Your task to perform on an android device: set an alarm Image 0: 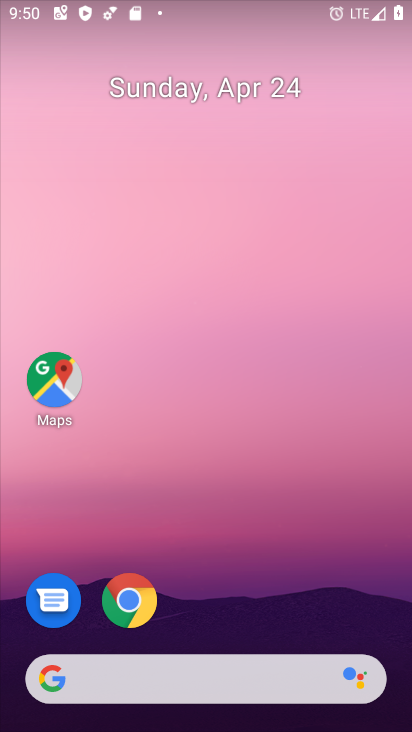
Step 0: drag from (192, 633) to (314, 0)
Your task to perform on an android device: set an alarm Image 1: 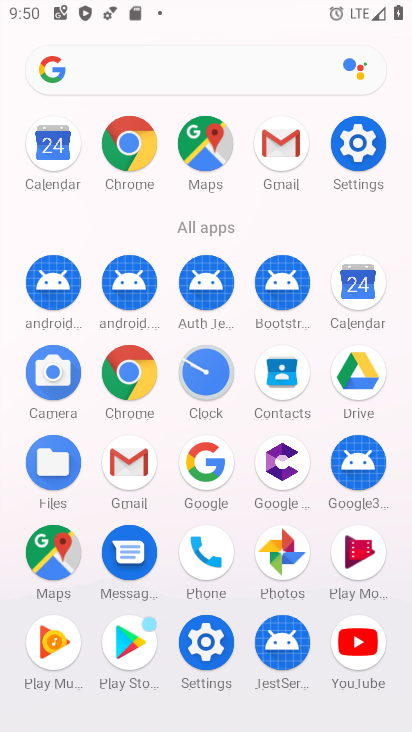
Step 1: click (359, 158)
Your task to perform on an android device: set an alarm Image 2: 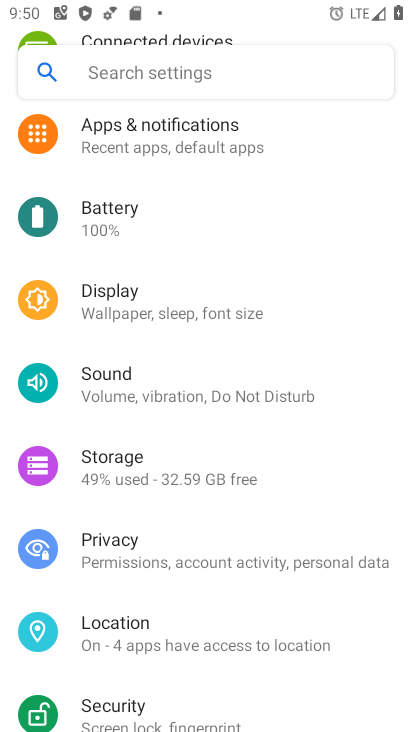
Step 2: press home button
Your task to perform on an android device: set an alarm Image 3: 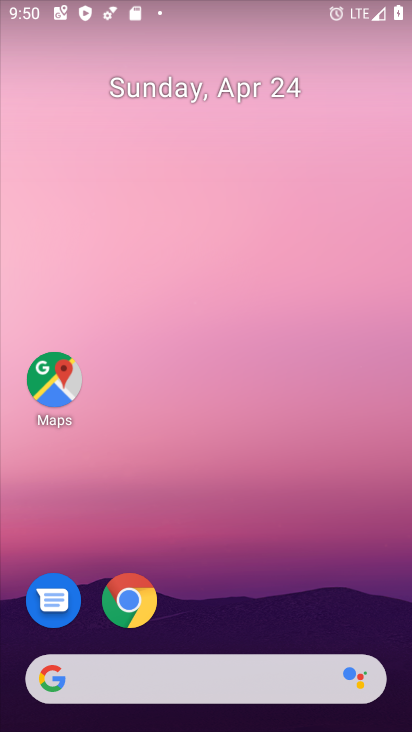
Step 3: drag from (185, 597) to (292, 2)
Your task to perform on an android device: set an alarm Image 4: 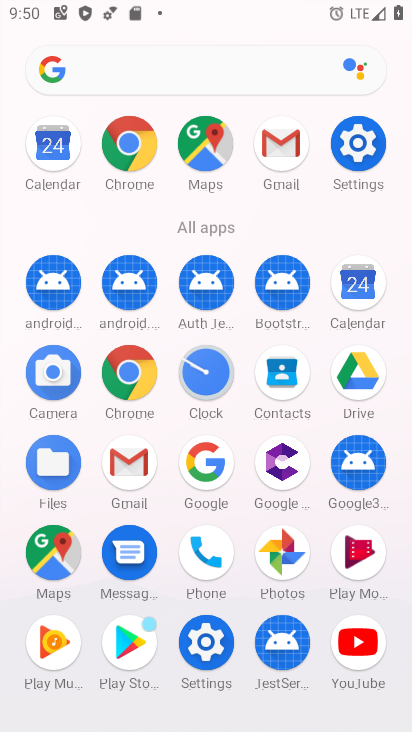
Step 4: click (196, 377)
Your task to perform on an android device: set an alarm Image 5: 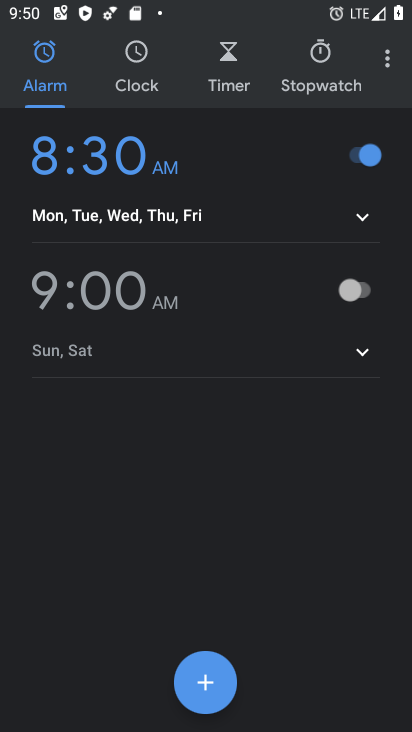
Step 5: click (361, 288)
Your task to perform on an android device: set an alarm Image 6: 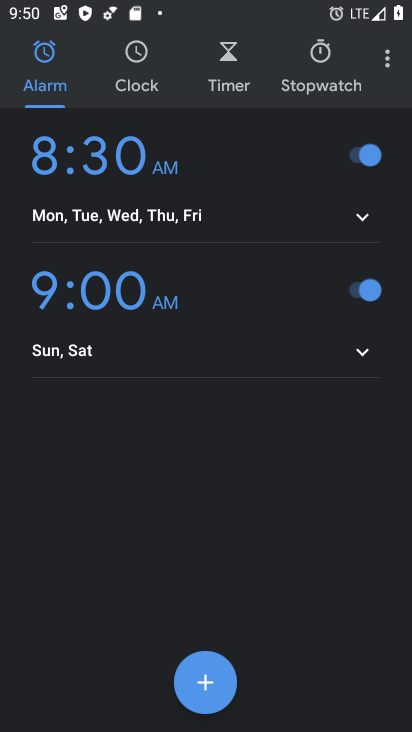
Step 6: task complete